Your task to perform on an android device: Open notification settings Image 0: 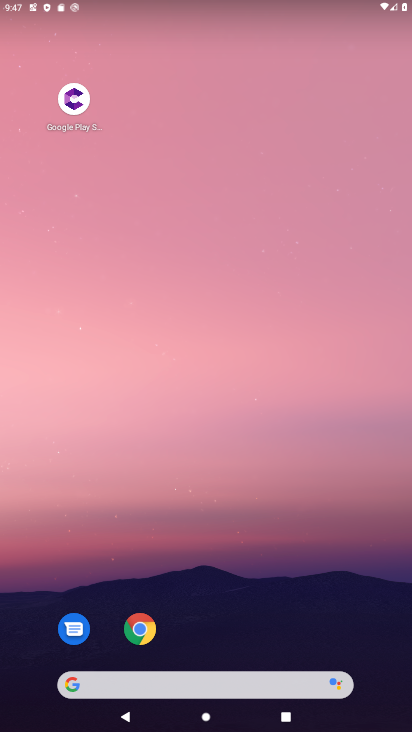
Step 0: drag from (257, 609) to (202, 171)
Your task to perform on an android device: Open notification settings Image 1: 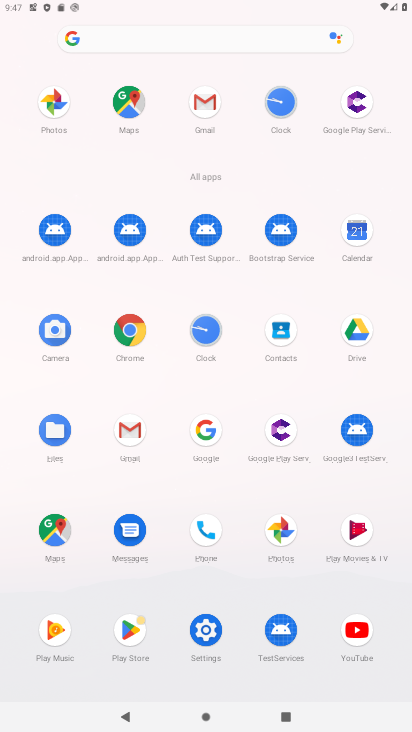
Step 1: click (208, 641)
Your task to perform on an android device: Open notification settings Image 2: 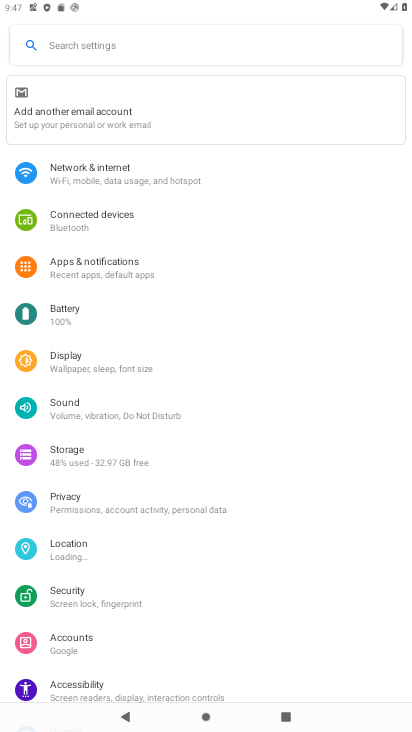
Step 2: click (163, 259)
Your task to perform on an android device: Open notification settings Image 3: 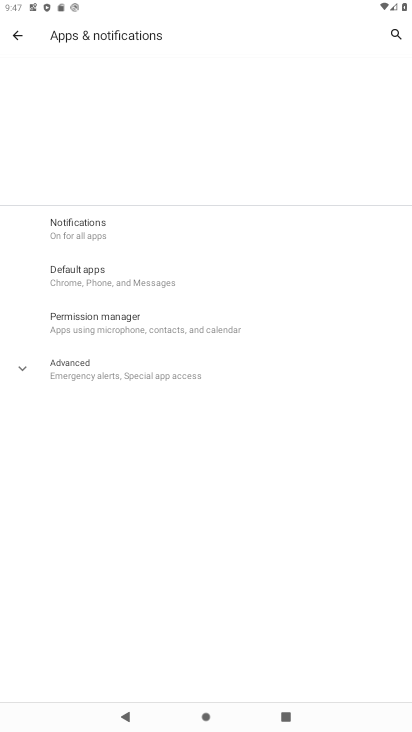
Step 3: click (155, 237)
Your task to perform on an android device: Open notification settings Image 4: 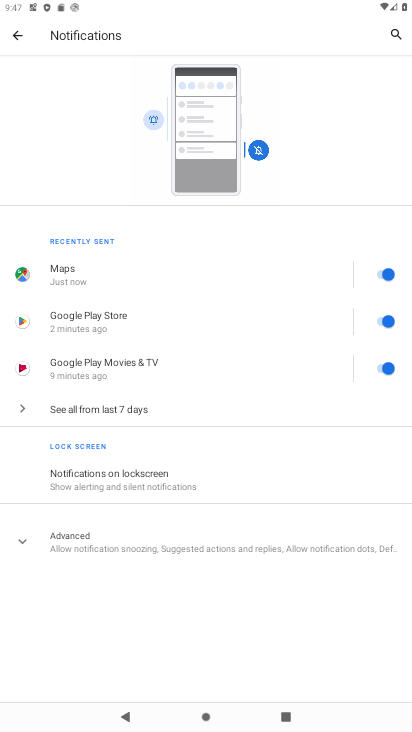
Step 4: task complete